Your task to perform on an android device: turn on notifications settings in the gmail app Image 0: 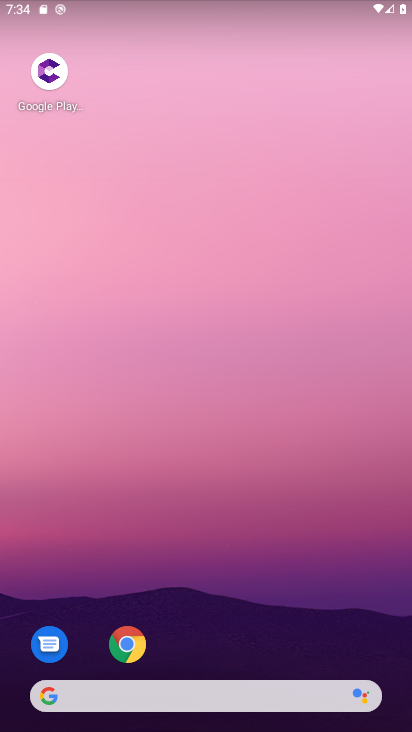
Step 0: drag from (292, 658) to (246, 7)
Your task to perform on an android device: turn on notifications settings in the gmail app Image 1: 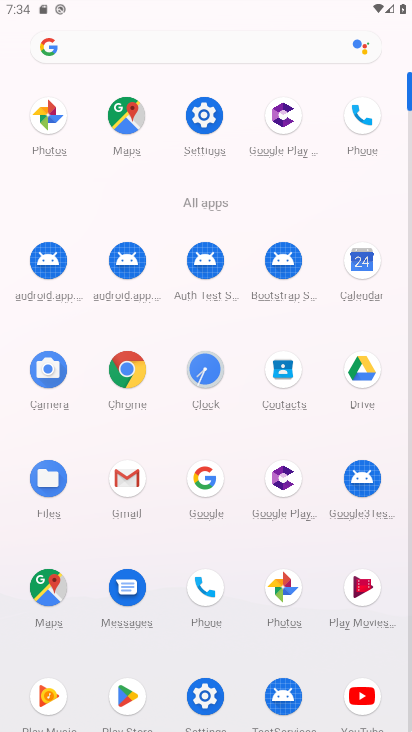
Step 1: click (130, 476)
Your task to perform on an android device: turn on notifications settings in the gmail app Image 2: 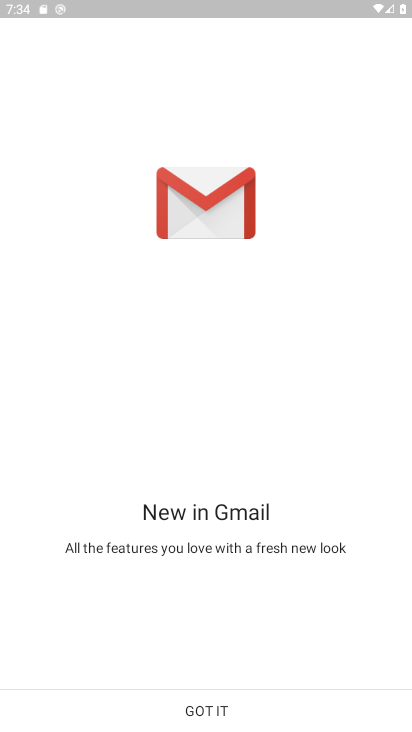
Step 2: click (236, 722)
Your task to perform on an android device: turn on notifications settings in the gmail app Image 3: 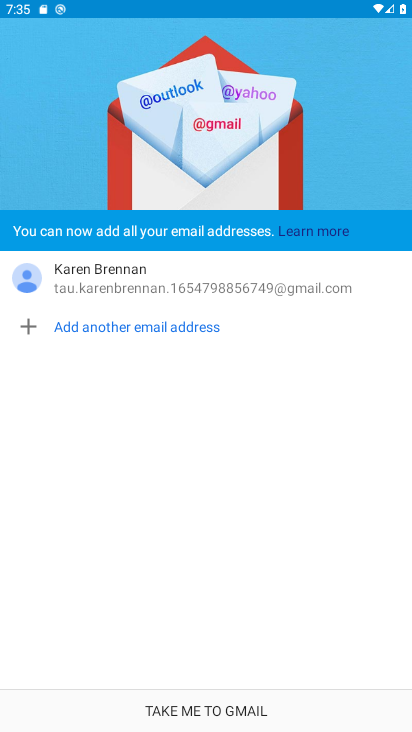
Step 3: click (229, 721)
Your task to perform on an android device: turn on notifications settings in the gmail app Image 4: 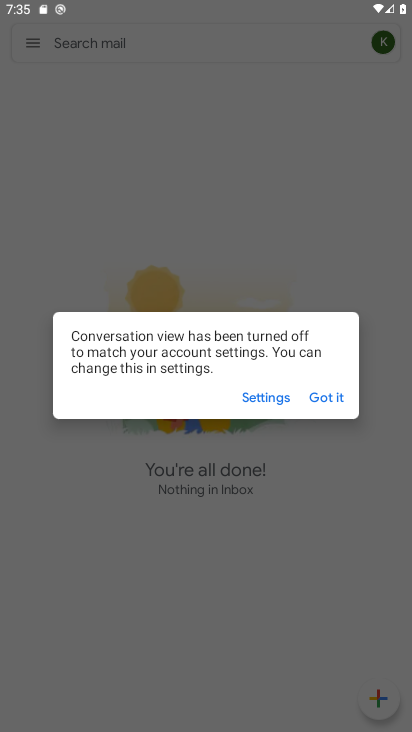
Step 4: click (328, 406)
Your task to perform on an android device: turn on notifications settings in the gmail app Image 5: 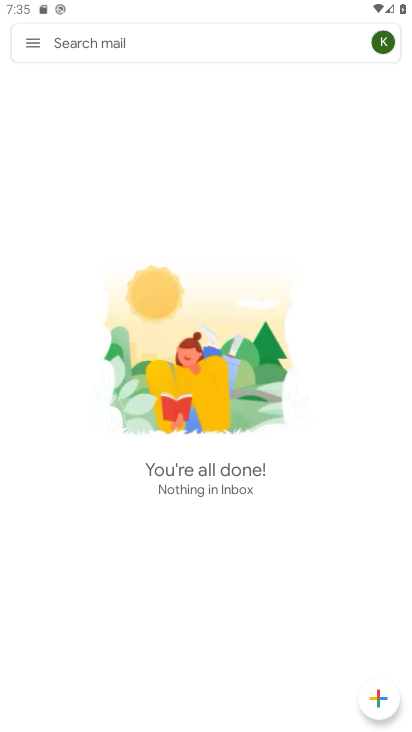
Step 5: click (32, 40)
Your task to perform on an android device: turn on notifications settings in the gmail app Image 6: 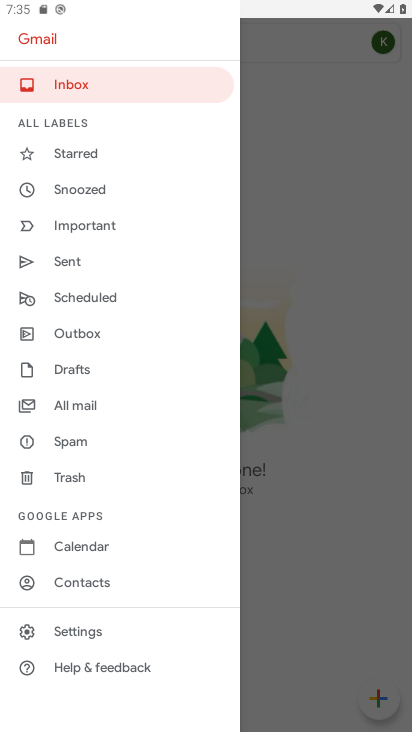
Step 6: click (83, 629)
Your task to perform on an android device: turn on notifications settings in the gmail app Image 7: 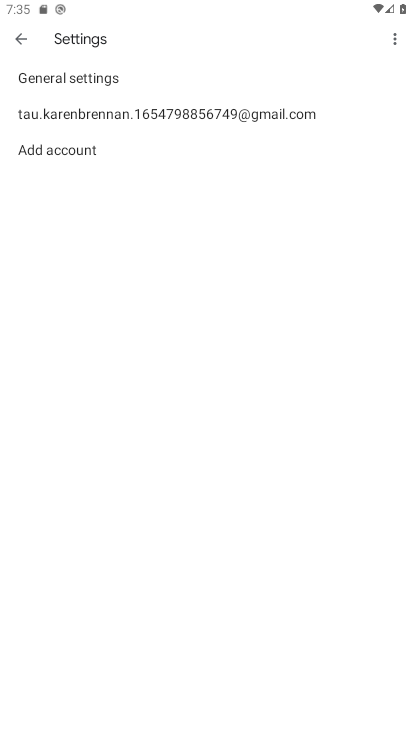
Step 7: click (136, 117)
Your task to perform on an android device: turn on notifications settings in the gmail app Image 8: 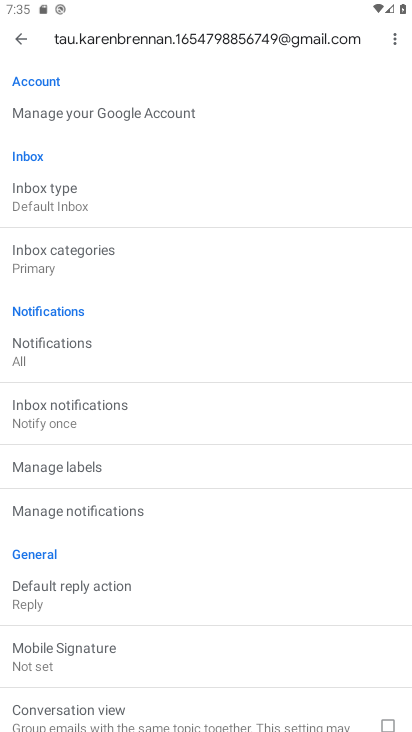
Step 8: click (63, 522)
Your task to perform on an android device: turn on notifications settings in the gmail app Image 9: 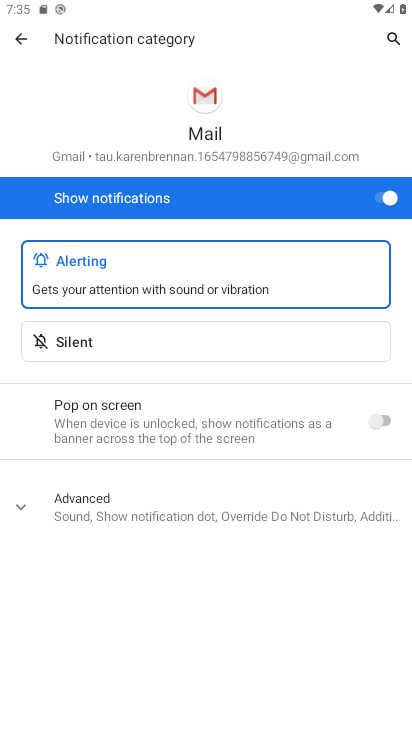
Step 9: task complete